Your task to perform on an android device: turn vacation reply on in the gmail app Image 0: 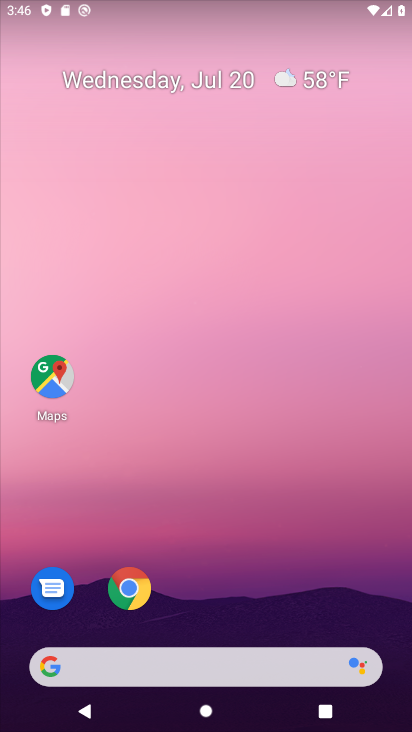
Step 0: drag from (233, 645) to (228, 99)
Your task to perform on an android device: turn vacation reply on in the gmail app Image 1: 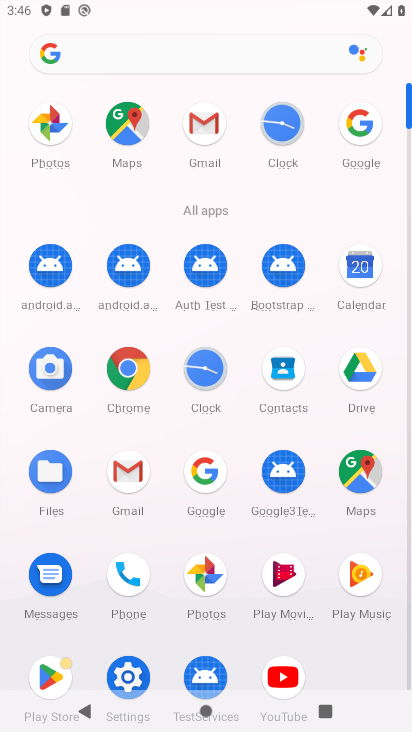
Step 1: click (130, 482)
Your task to perform on an android device: turn vacation reply on in the gmail app Image 2: 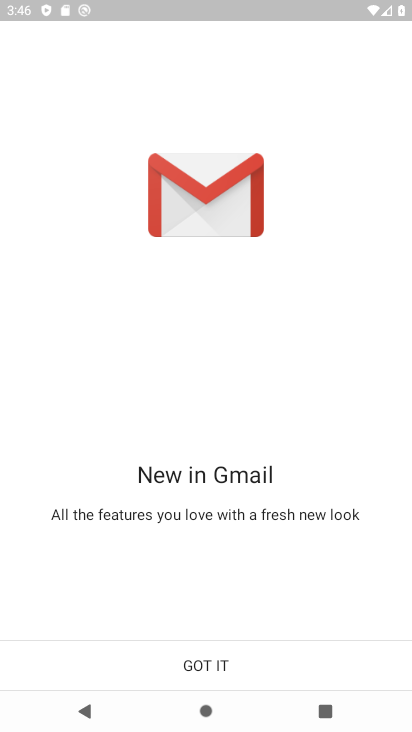
Step 2: click (215, 662)
Your task to perform on an android device: turn vacation reply on in the gmail app Image 3: 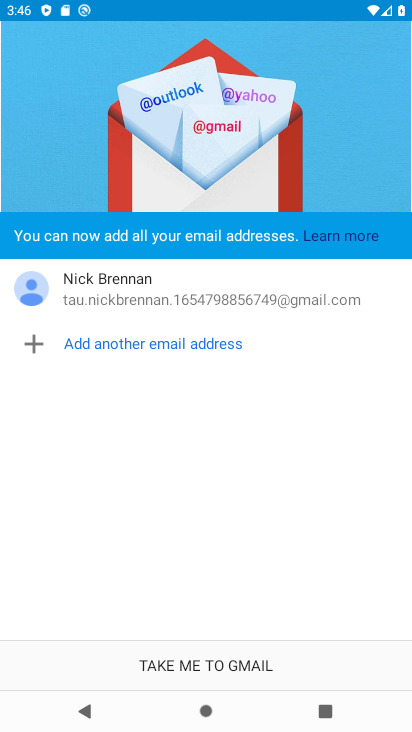
Step 3: click (212, 660)
Your task to perform on an android device: turn vacation reply on in the gmail app Image 4: 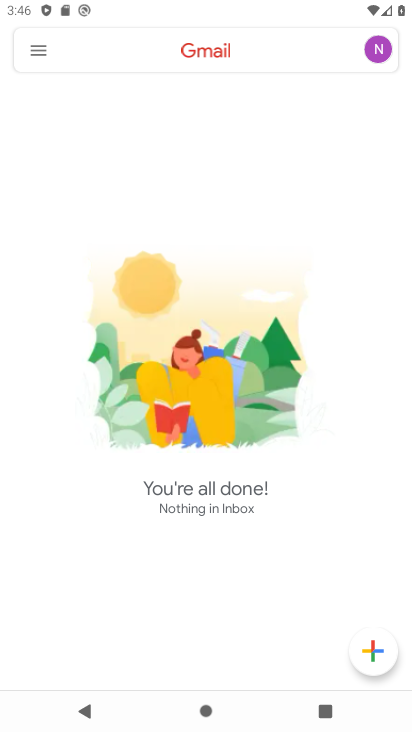
Step 4: click (39, 47)
Your task to perform on an android device: turn vacation reply on in the gmail app Image 5: 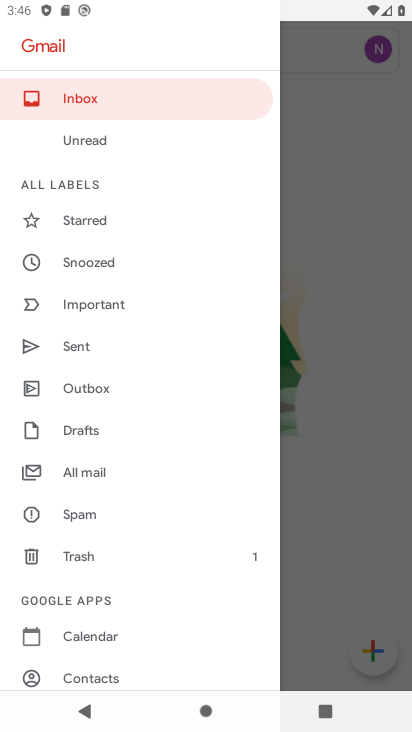
Step 5: drag from (97, 658) to (126, 241)
Your task to perform on an android device: turn vacation reply on in the gmail app Image 6: 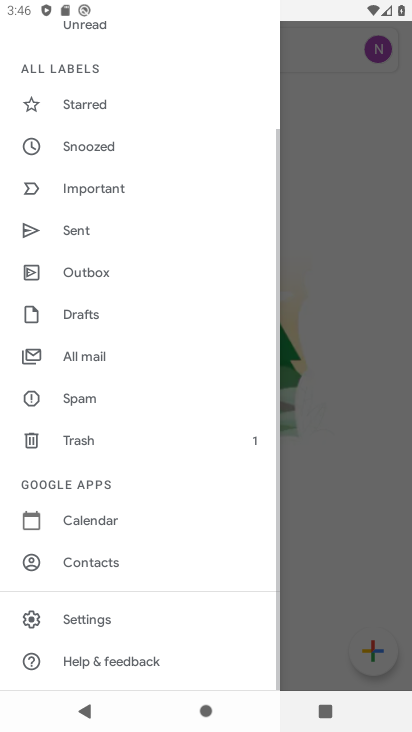
Step 6: click (95, 628)
Your task to perform on an android device: turn vacation reply on in the gmail app Image 7: 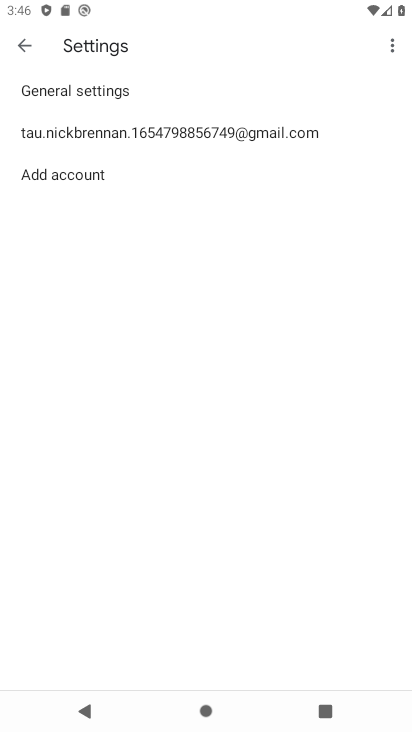
Step 7: click (73, 133)
Your task to perform on an android device: turn vacation reply on in the gmail app Image 8: 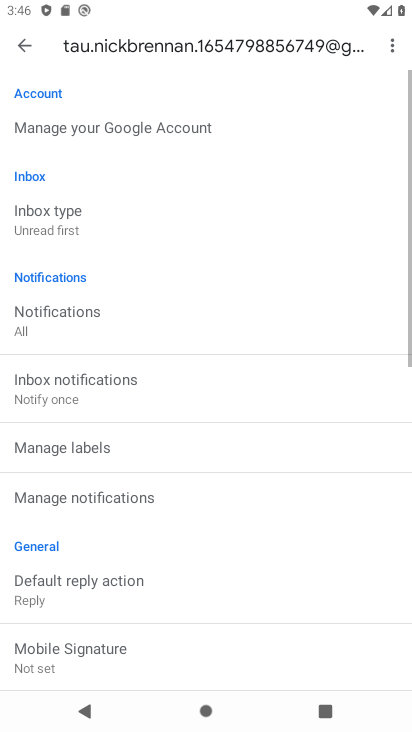
Step 8: drag from (96, 591) to (81, 481)
Your task to perform on an android device: turn vacation reply on in the gmail app Image 9: 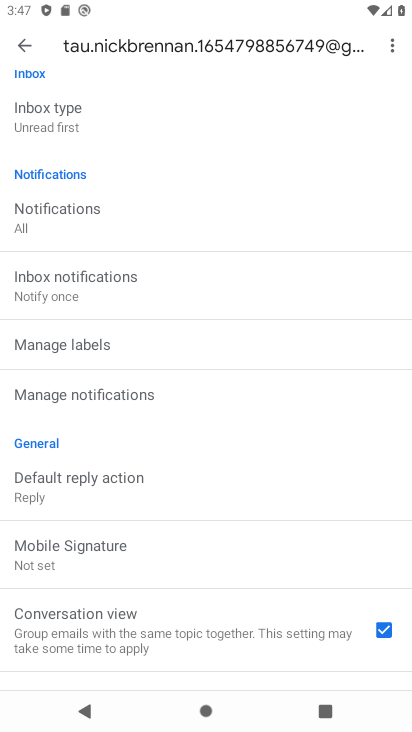
Step 9: drag from (87, 636) to (98, 348)
Your task to perform on an android device: turn vacation reply on in the gmail app Image 10: 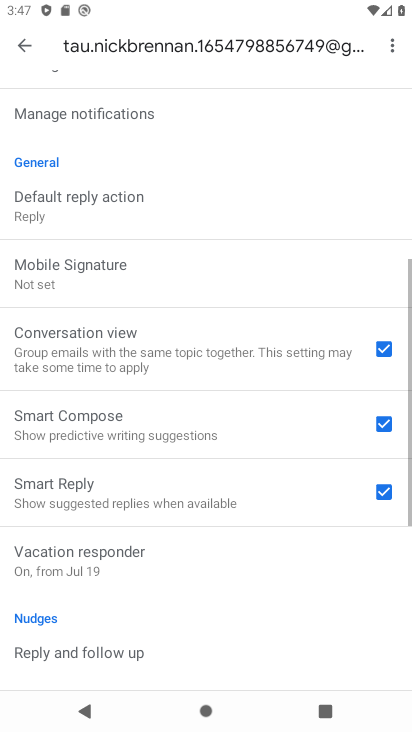
Step 10: drag from (101, 649) to (102, 392)
Your task to perform on an android device: turn vacation reply on in the gmail app Image 11: 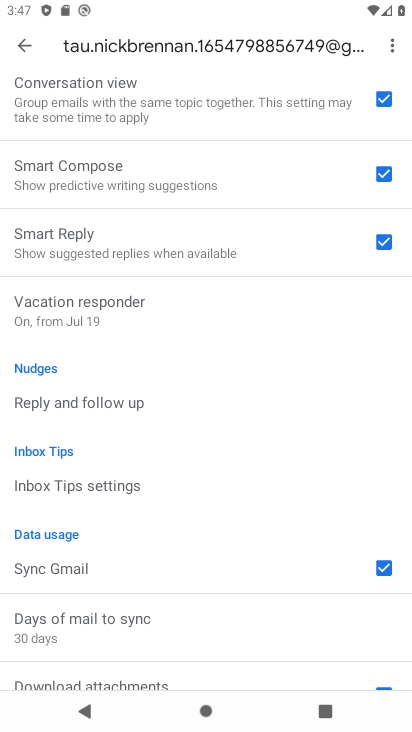
Step 11: click (86, 298)
Your task to perform on an android device: turn vacation reply on in the gmail app Image 12: 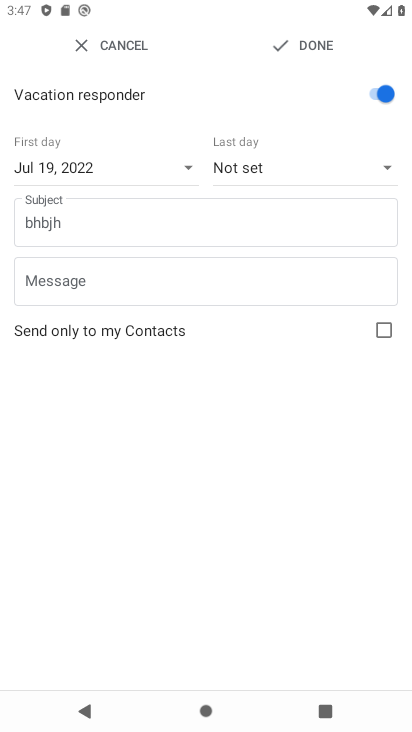
Step 12: click (295, 42)
Your task to perform on an android device: turn vacation reply on in the gmail app Image 13: 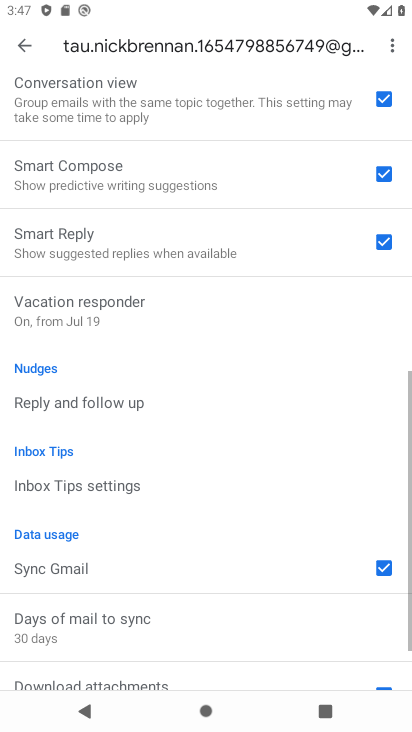
Step 13: task complete